Your task to perform on an android device: turn notification dots off Image 0: 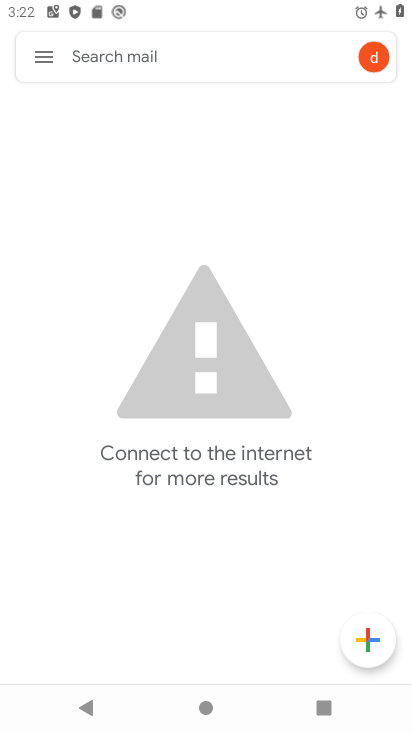
Step 0: press home button
Your task to perform on an android device: turn notification dots off Image 1: 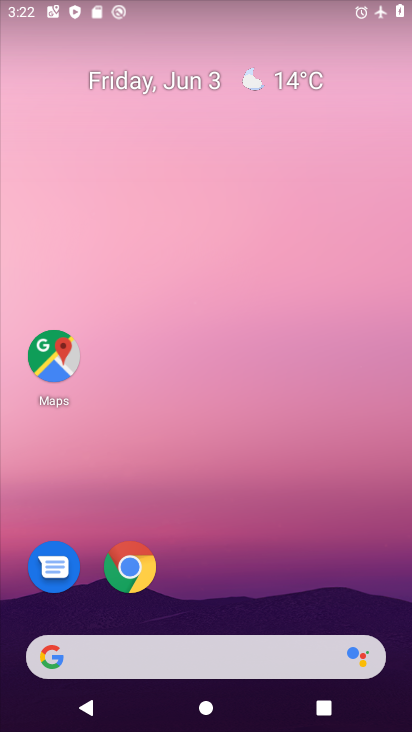
Step 1: drag from (243, 654) to (279, 242)
Your task to perform on an android device: turn notification dots off Image 2: 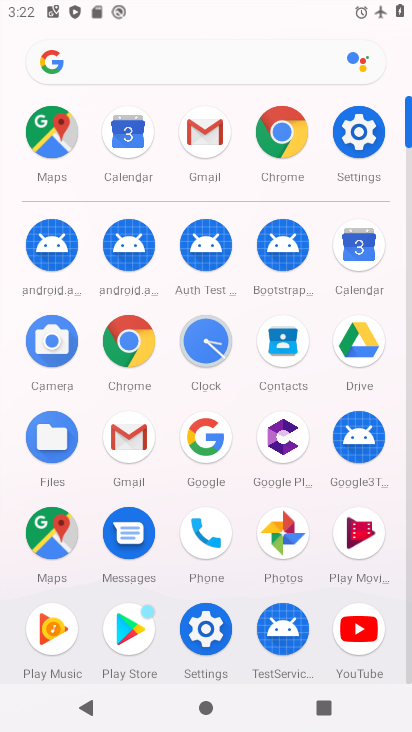
Step 2: click (355, 130)
Your task to perform on an android device: turn notification dots off Image 3: 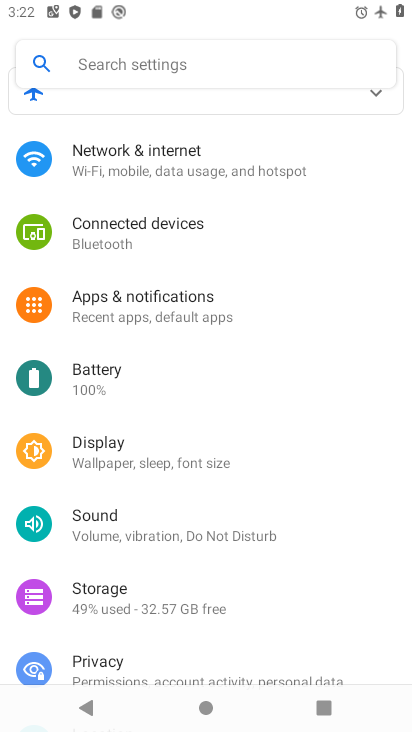
Step 3: click (132, 57)
Your task to perform on an android device: turn notification dots off Image 4: 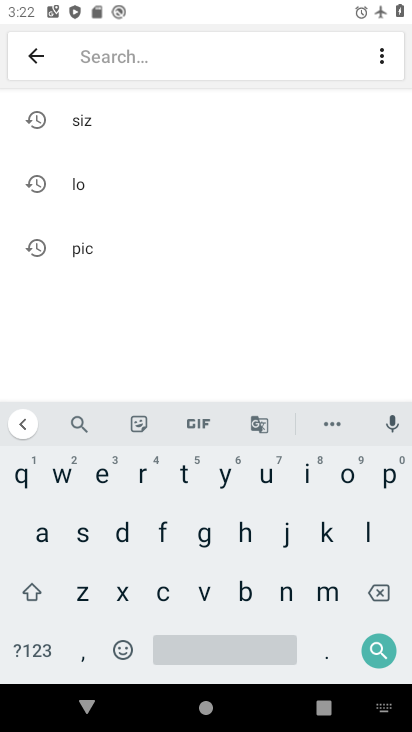
Step 4: click (115, 537)
Your task to perform on an android device: turn notification dots off Image 5: 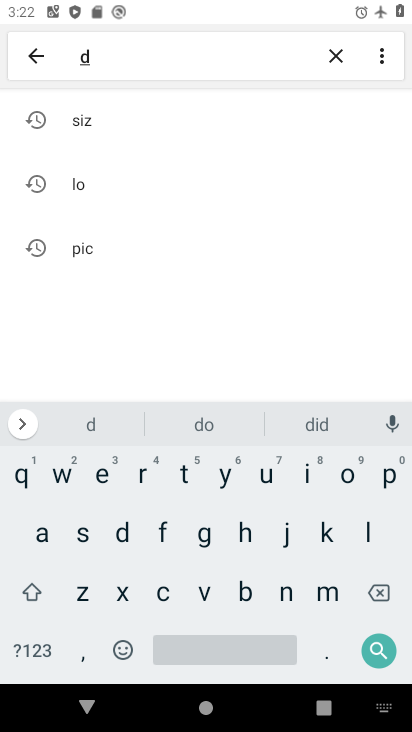
Step 5: click (350, 476)
Your task to perform on an android device: turn notification dots off Image 6: 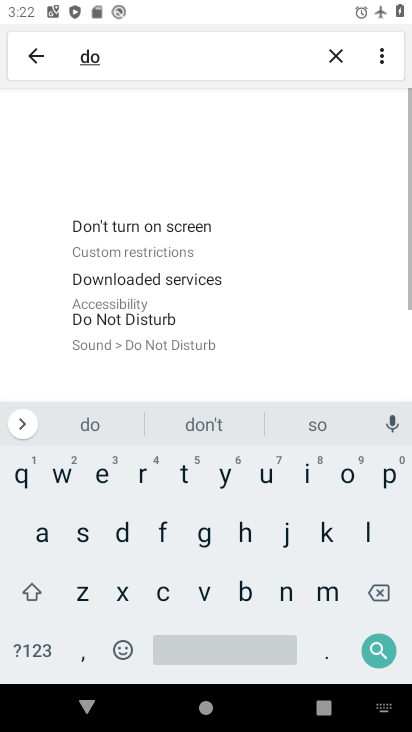
Step 6: click (184, 481)
Your task to perform on an android device: turn notification dots off Image 7: 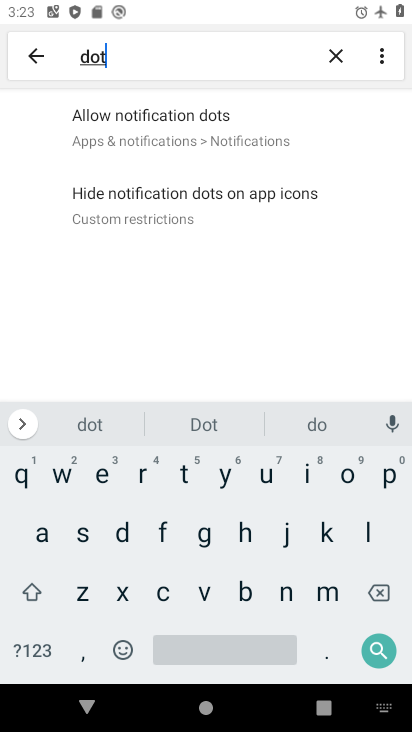
Step 7: click (168, 110)
Your task to perform on an android device: turn notification dots off Image 8: 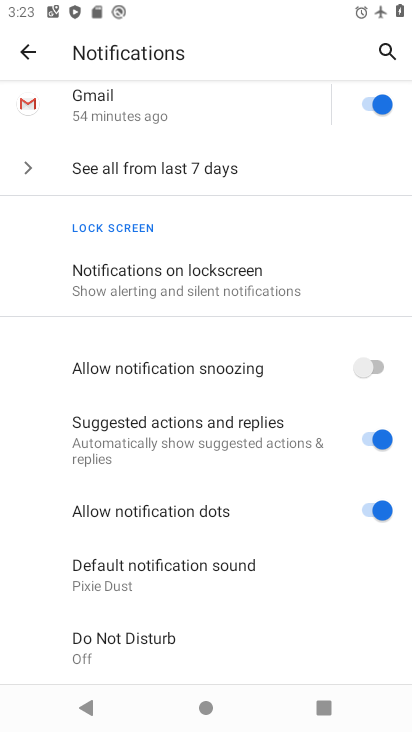
Step 8: click (342, 502)
Your task to perform on an android device: turn notification dots off Image 9: 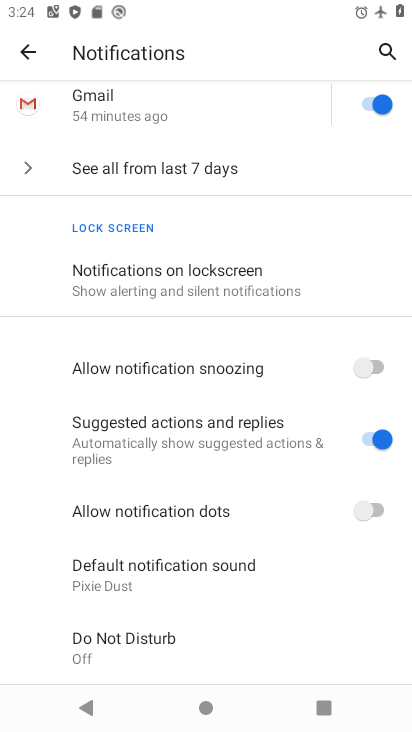
Step 9: task complete